Your task to perform on an android device: choose inbox layout in the gmail app Image 0: 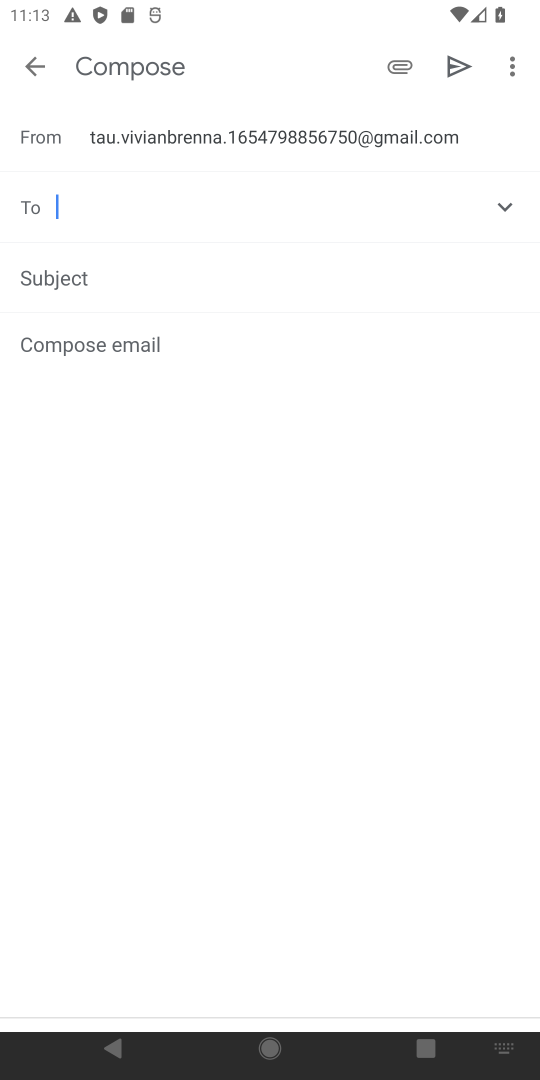
Step 0: press home button
Your task to perform on an android device: choose inbox layout in the gmail app Image 1: 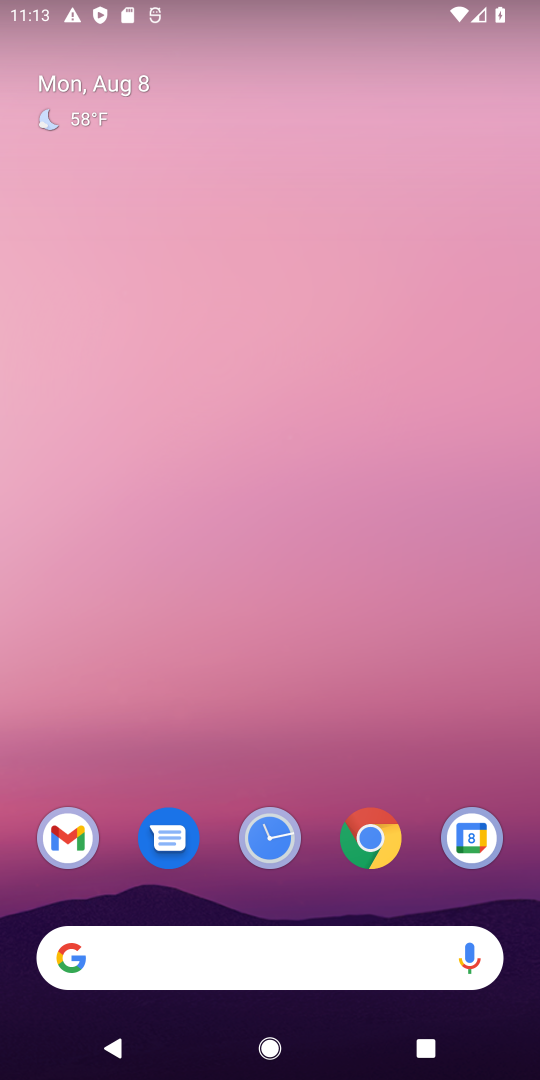
Step 1: click (53, 843)
Your task to perform on an android device: choose inbox layout in the gmail app Image 2: 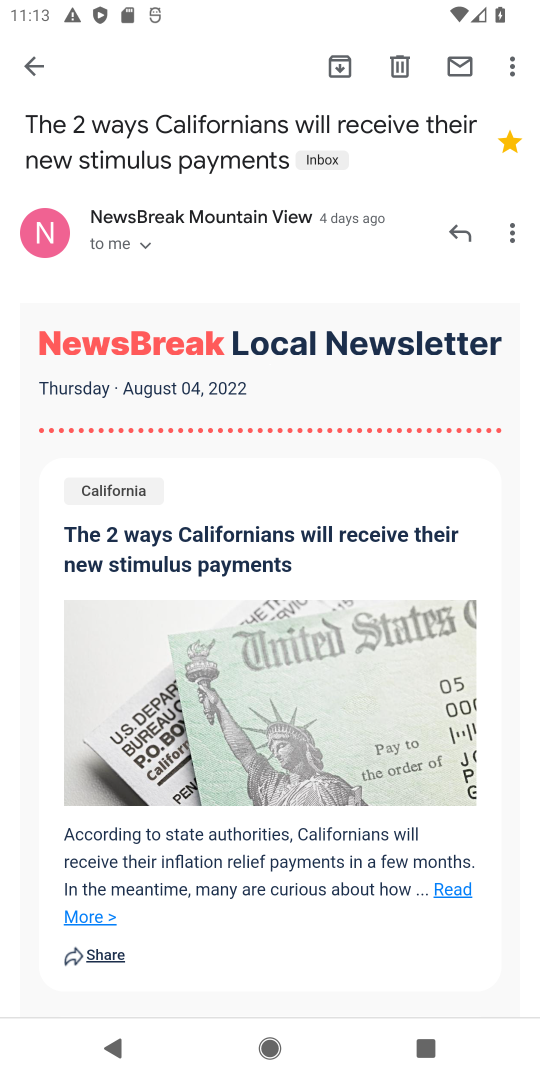
Step 2: click (26, 69)
Your task to perform on an android device: choose inbox layout in the gmail app Image 3: 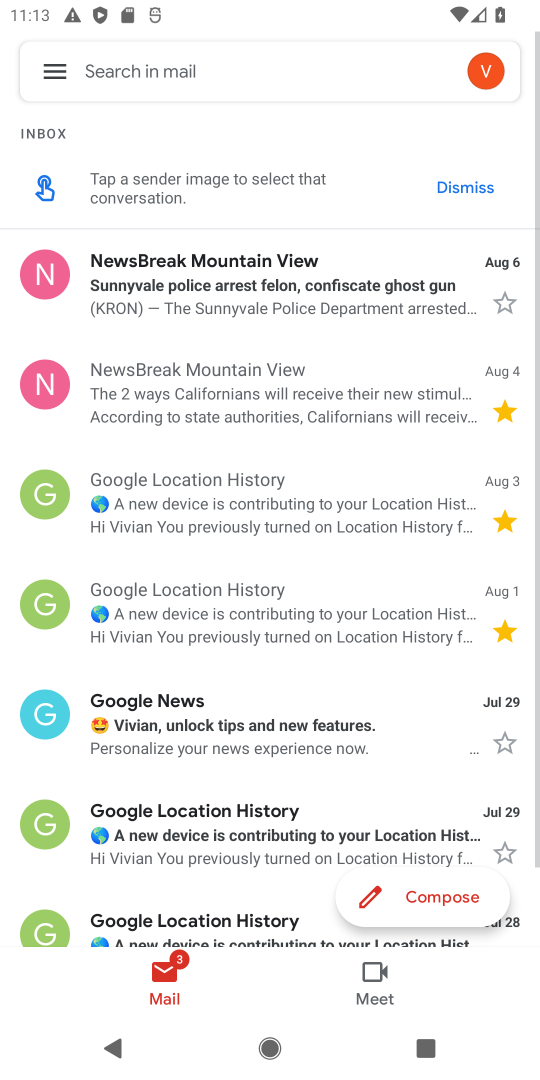
Step 3: click (62, 65)
Your task to perform on an android device: choose inbox layout in the gmail app Image 4: 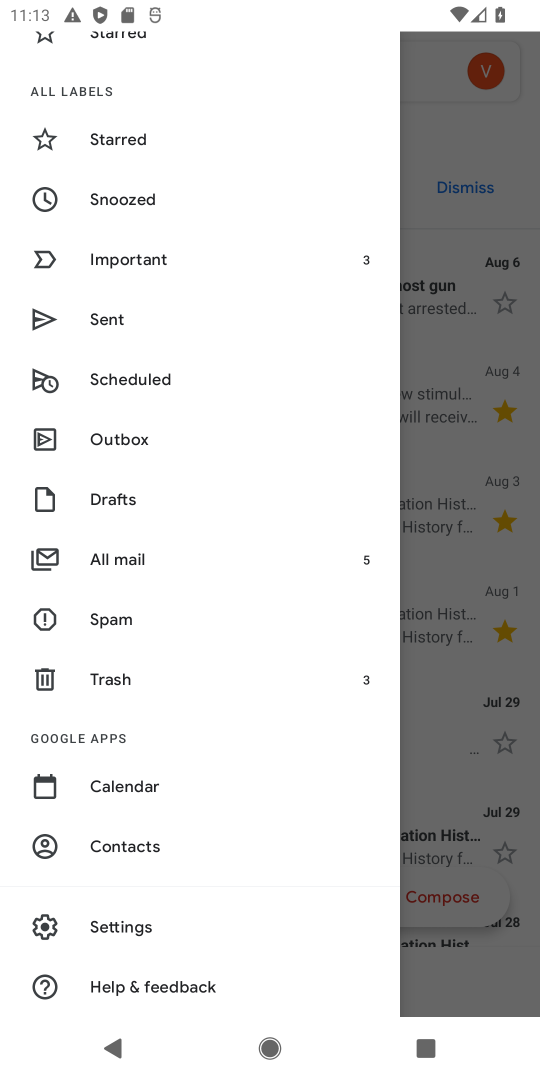
Step 4: click (124, 932)
Your task to perform on an android device: choose inbox layout in the gmail app Image 5: 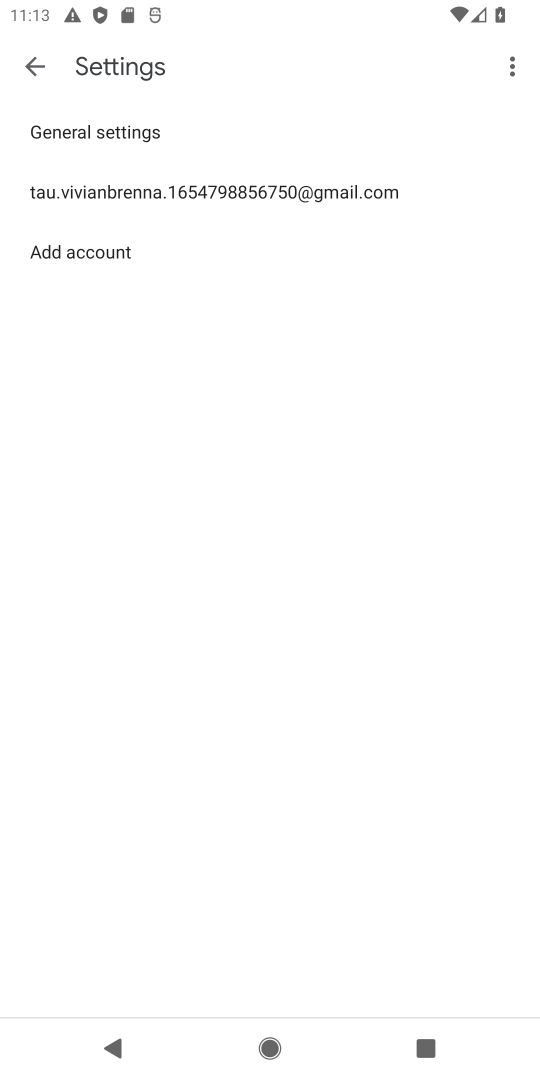
Step 5: click (174, 195)
Your task to perform on an android device: choose inbox layout in the gmail app Image 6: 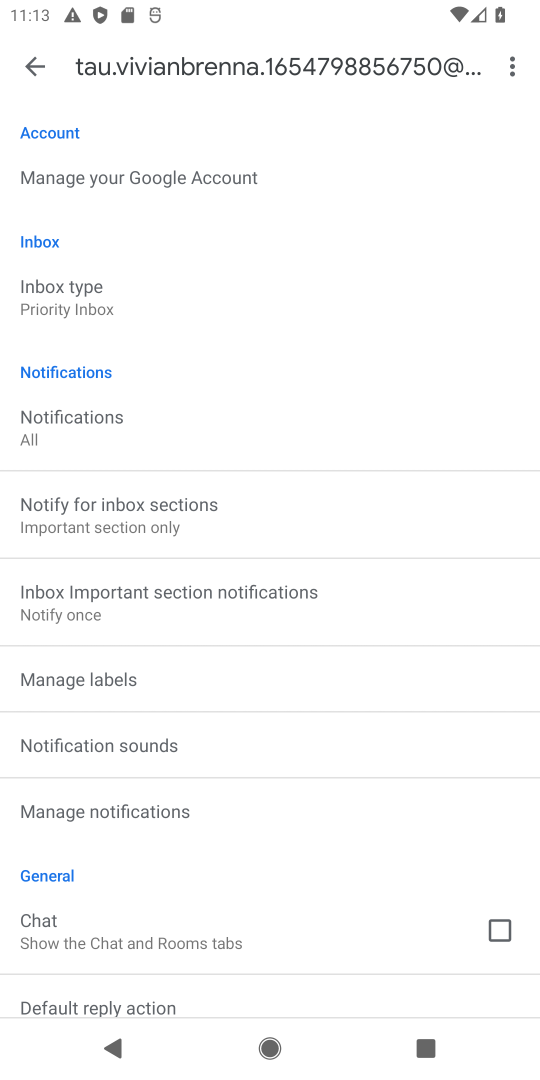
Step 6: click (74, 289)
Your task to perform on an android device: choose inbox layout in the gmail app Image 7: 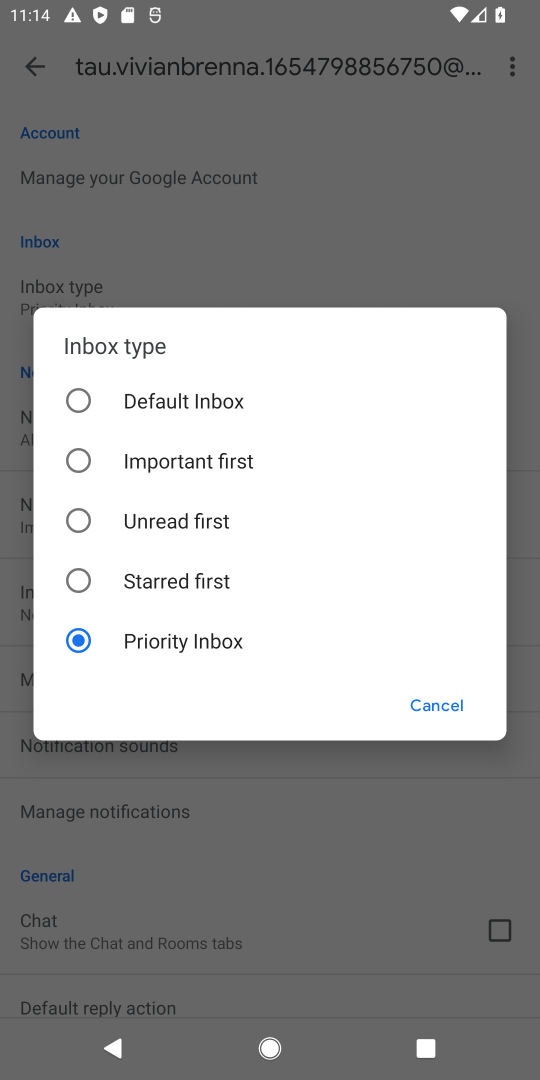
Step 7: click (82, 398)
Your task to perform on an android device: choose inbox layout in the gmail app Image 8: 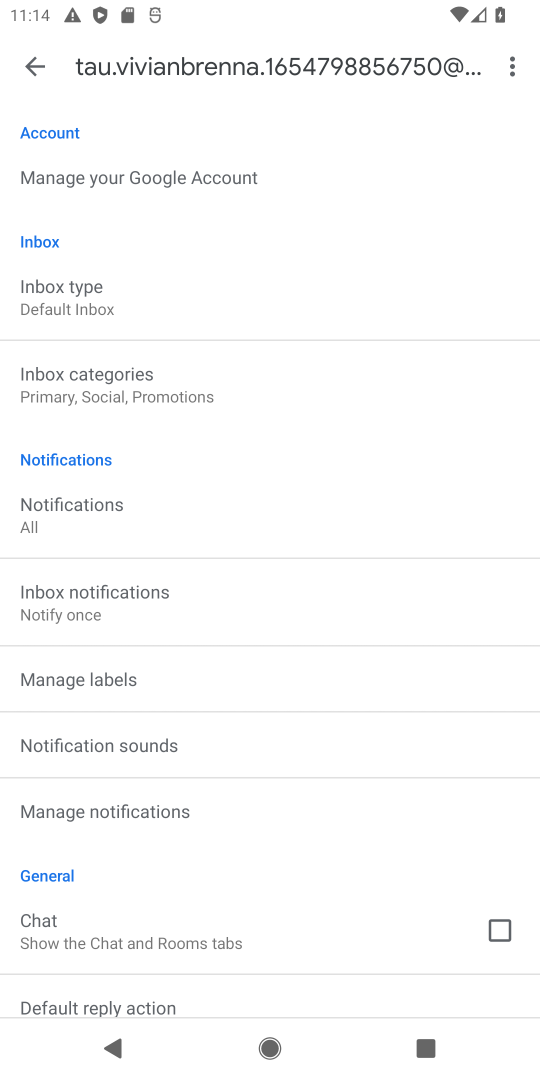
Step 8: task complete